Your task to perform on an android device: Open maps Image 0: 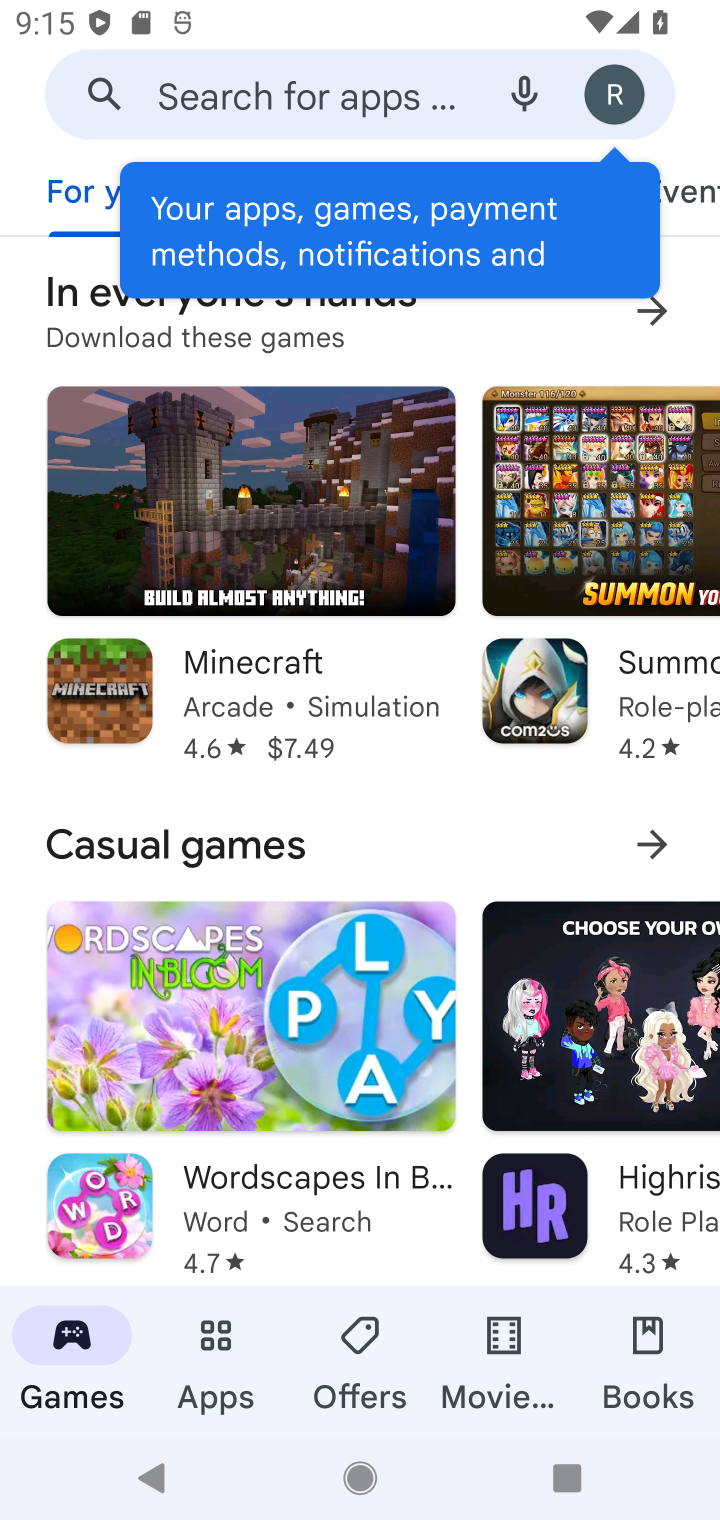
Step 0: press home button
Your task to perform on an android device: Open maps Image 1: 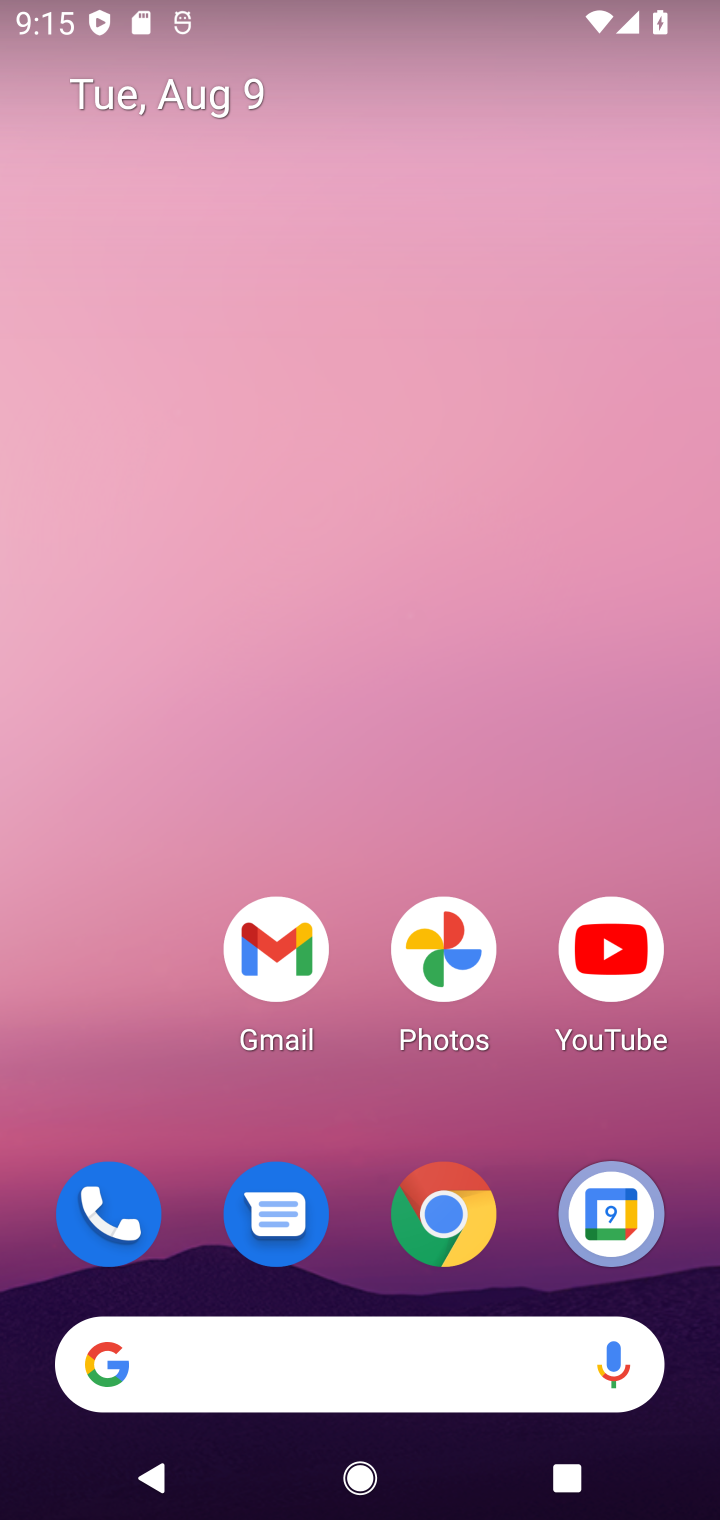
Step 1: task complete